Your task to perform on an android device: move a message to another label in the gmail app Image 0: 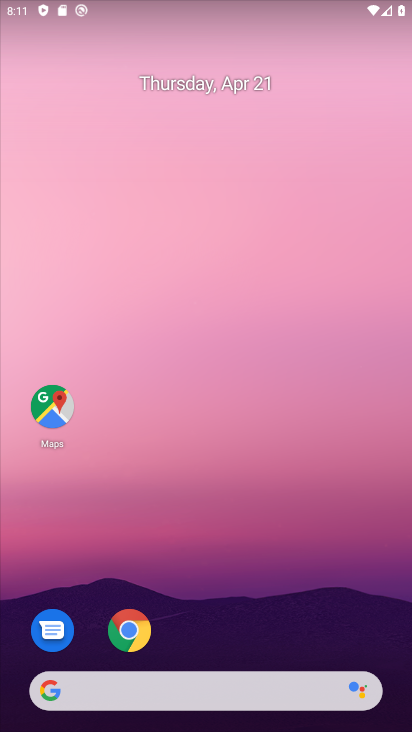
Step 0: drag from (243, 441) to (295, 67)
Your task to perform on an android device: move a message to another label in the gmail app Image 1: 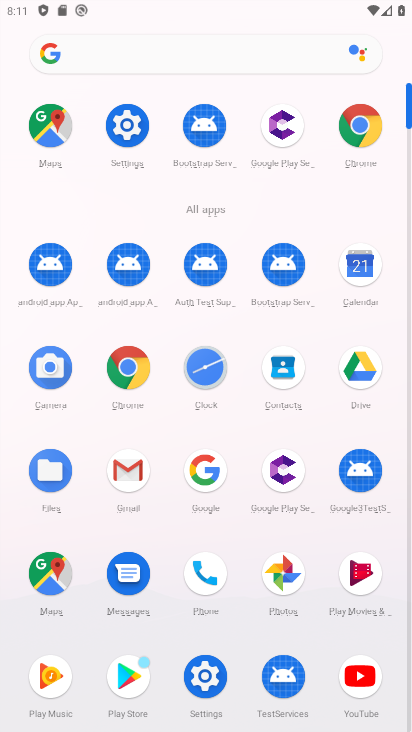
Step 1: click (132, 480)
Your task to perform on an android device: move a message to another label in the gmail app Image 2: 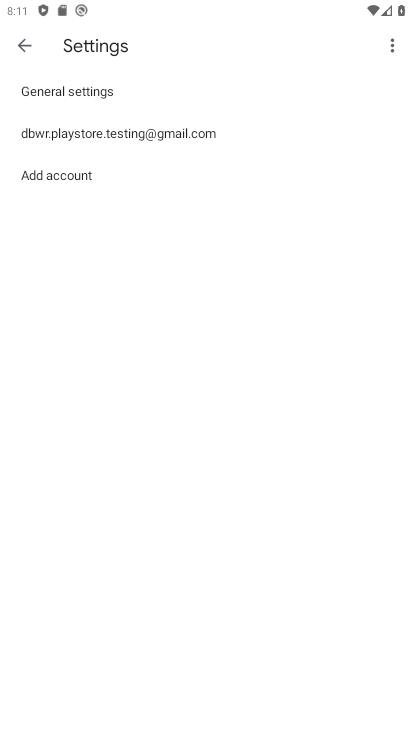
Step 2: click (31, 38)
Your task to perform on an android device: move a message to another label in the gmail app Image 3: 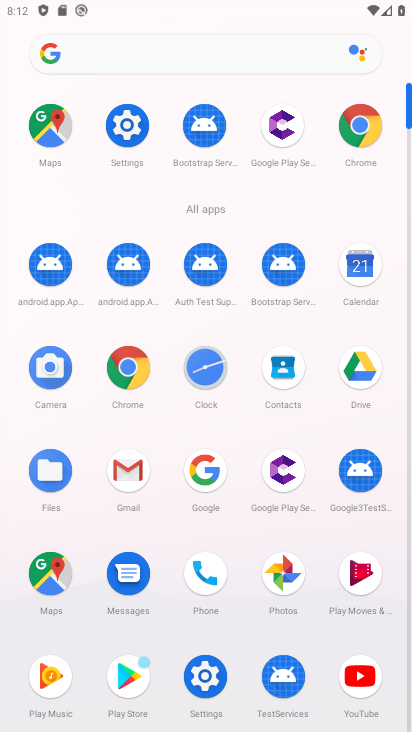
Step 3: click (113, 451)
Your task to perform on an android device: move a message to another label in the gmail app Image 4: 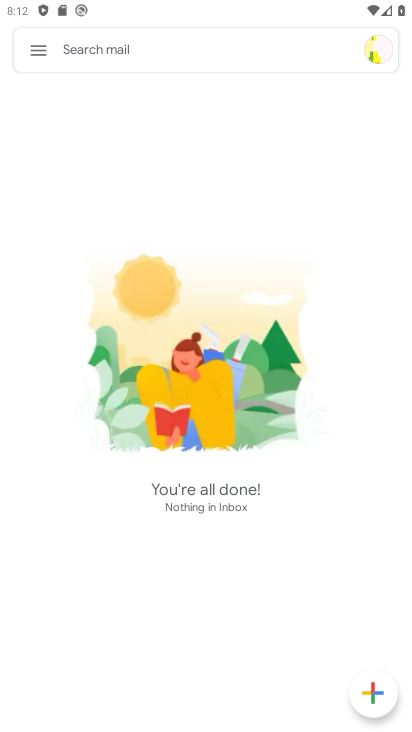
Step 4: click (25, 47)
Your task to perform on an android device: move a message to another label in the gmail app Image 5: 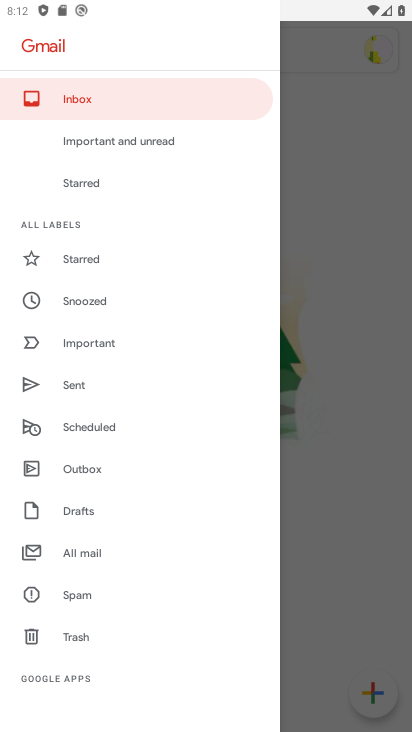
Step 5: click (80, 558)
Your task to perform on an android device: move a message to another label in the gmail app Image 6: 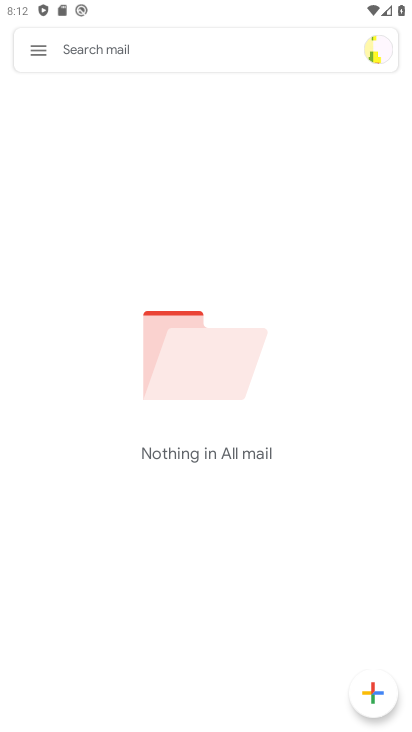
Step 6: task complete